Your task to perform on an android device: When is my next appointment? Image 0: 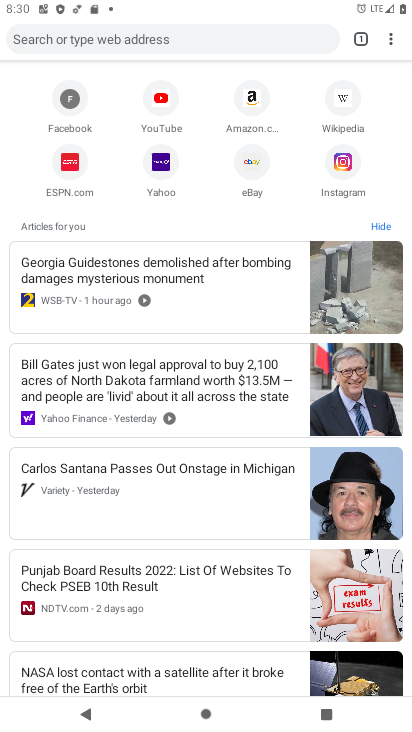
Step 0: press home button
Your task to perform on an android device: When is my next appointment? Image 1: 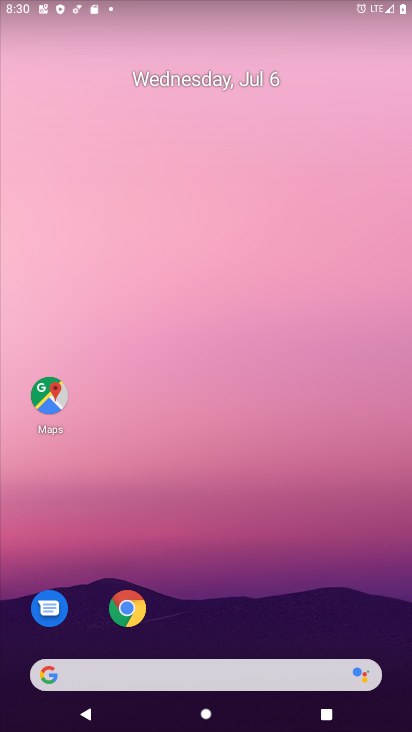
Step 1: drag from (405, 664) to (410, 69)
Your task to perform on an android device: When is my next appointment? Image 2: 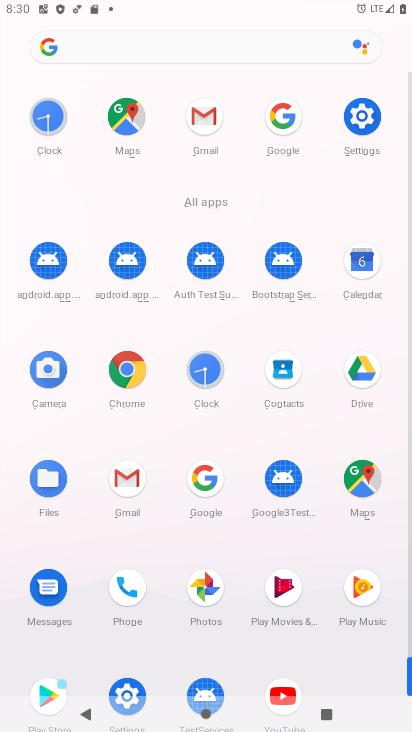
Step 2: click (360, 267)
Your task to perform on an android device: When is my next appointment? Image 3: 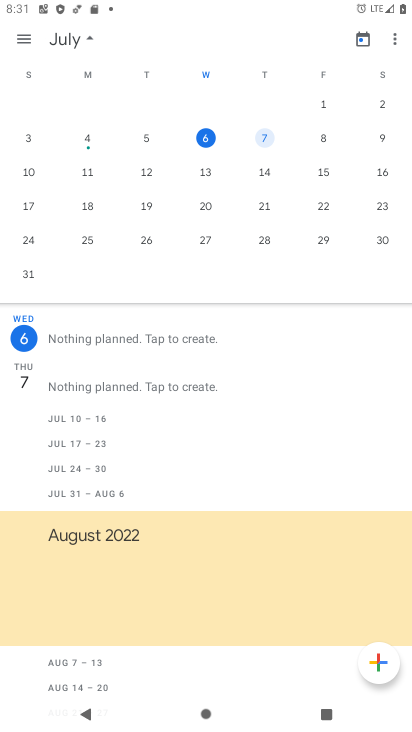
Step 3: task complete